Your task to perform on an android device: set default search engine in the chrome app Image 0: 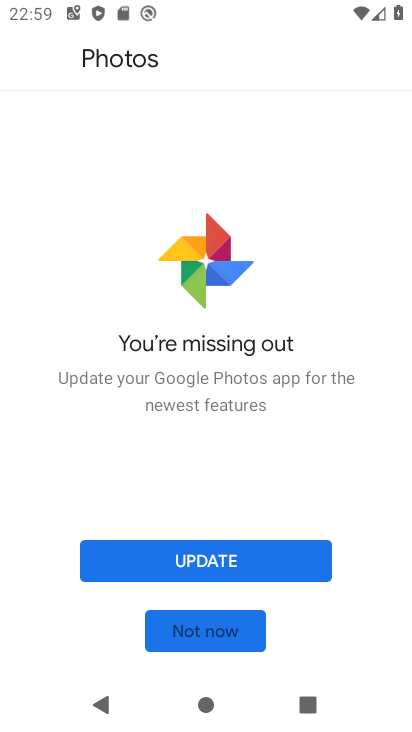
Step 0: click (243, 636)
Your task to perform on an android device: set default search engine in the chrome app Image 1: 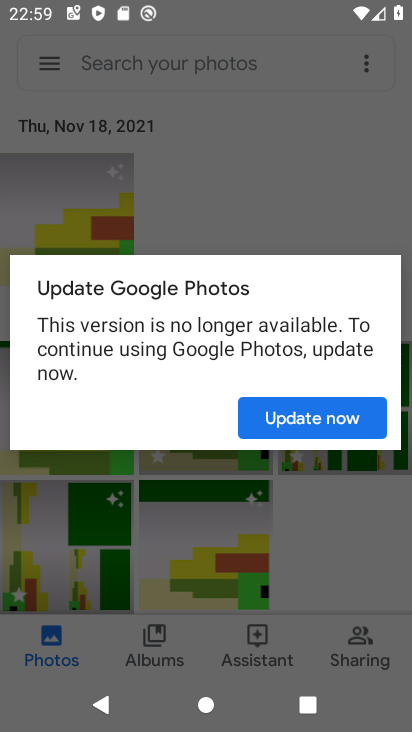
Step 1: click (274, 423)
Your task to perform on an android device: set default search engine in the chrome app Image 2: 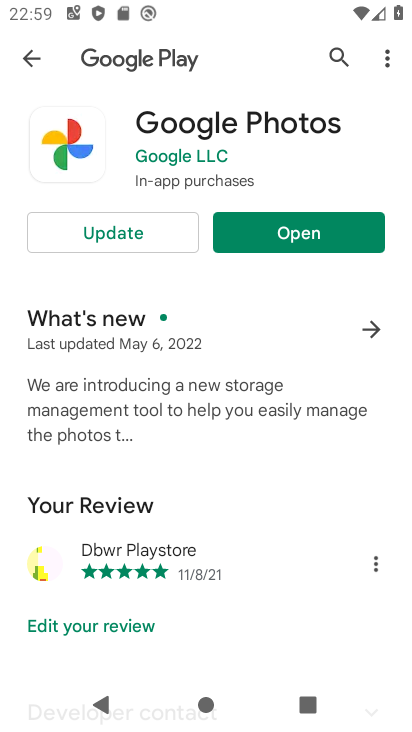
Step 2: click (125, 233)
Your task to perform on an android device: set default search engine in the chrome app Image 3: 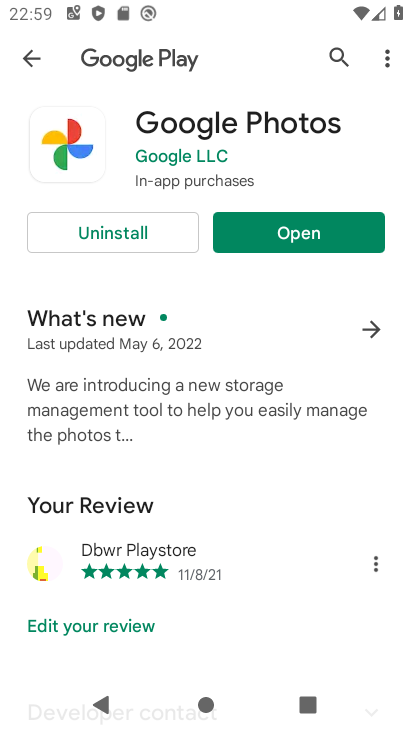
Step 3: click (344, 228)
Your task to perform on an android device: set default search engine in the chrome app Image 4: 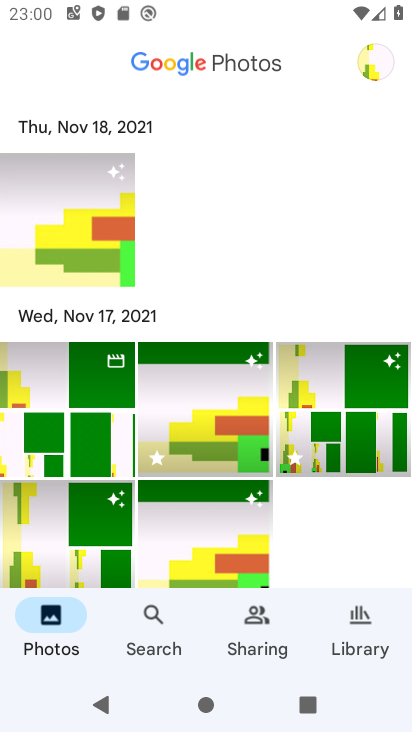
Step 4: press home button
Your task to perform on an android device: set default search engine in the chrome app Image 5: 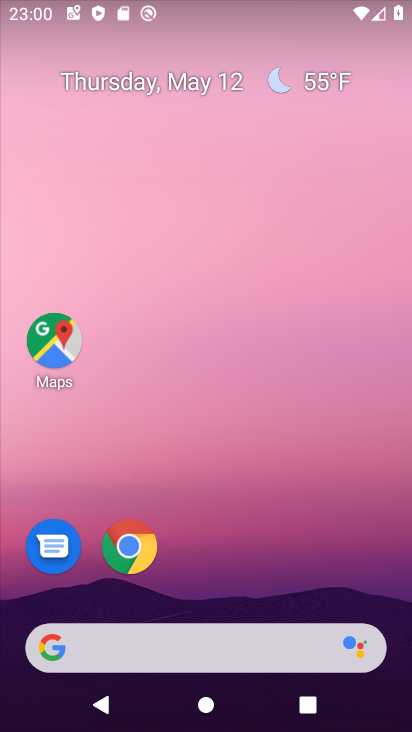
Step 5: click (137, 545)
Your task to perform on an android device: set default search engine in the chrome app Image 6: 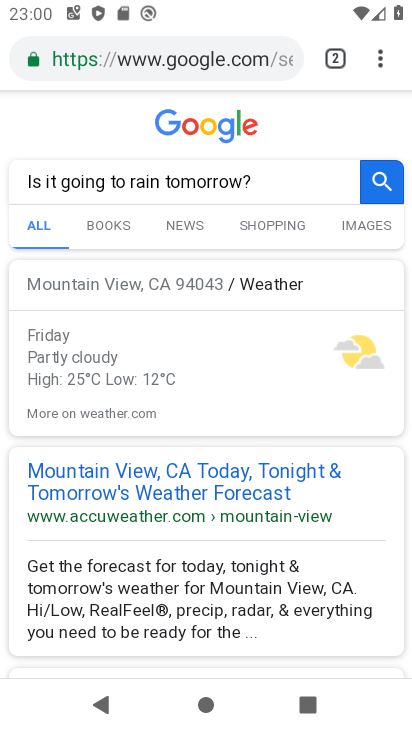
Step 6: click (381, 50)
Your task to perform on an android device: set default search engine in the chrome app Image 7: 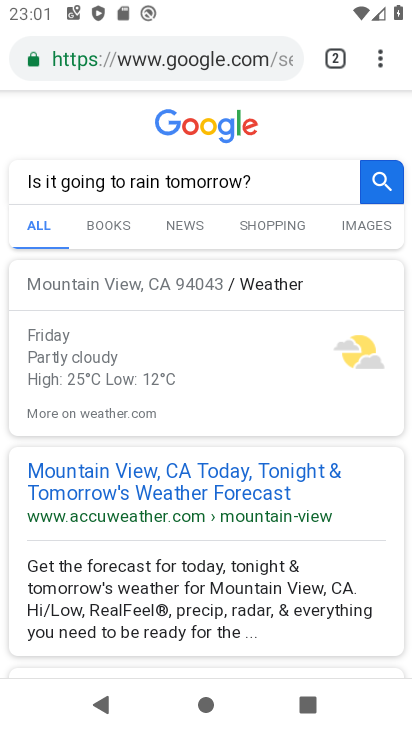
Step 7: click (380, 51)
Your task to perform on an android device: set default search engine in the chrome app Image 8: 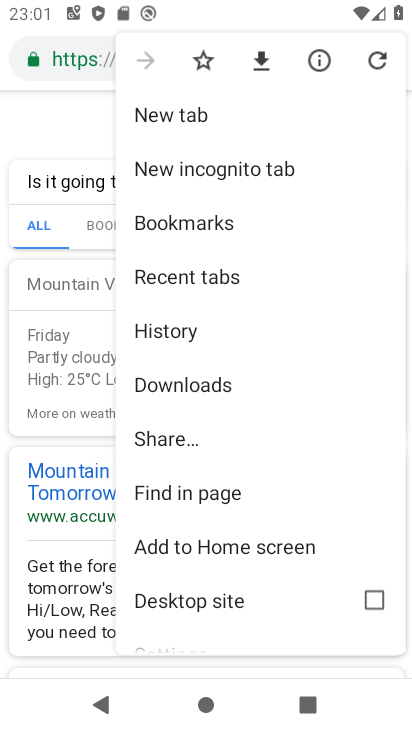
Step 8: drag from (203, 575) to (233, 374)
Your task to perform on an android device: set default search engine in the chrome app Image 9: 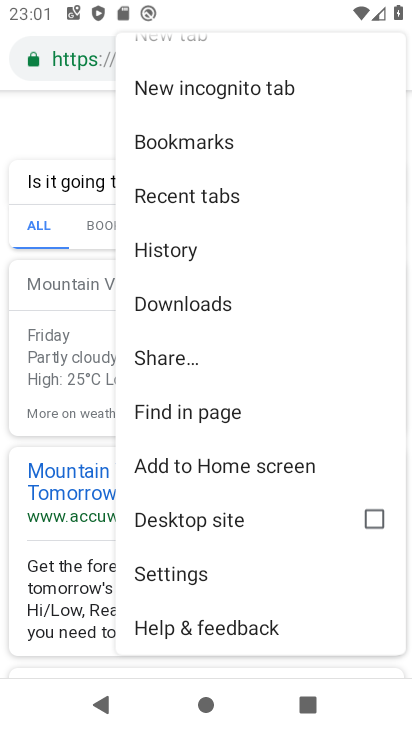
Step 9: click (212, 579)
Your task to perform on an android device: set default search engine in the chrome app Image 10: 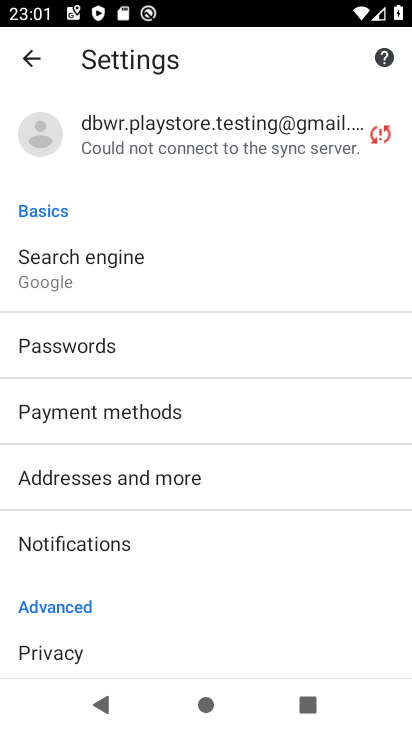
Step 10: drag from (0, 667) to (97, 251)
Your task to perform on an android device: set default search engine in the chrome app Image 11: 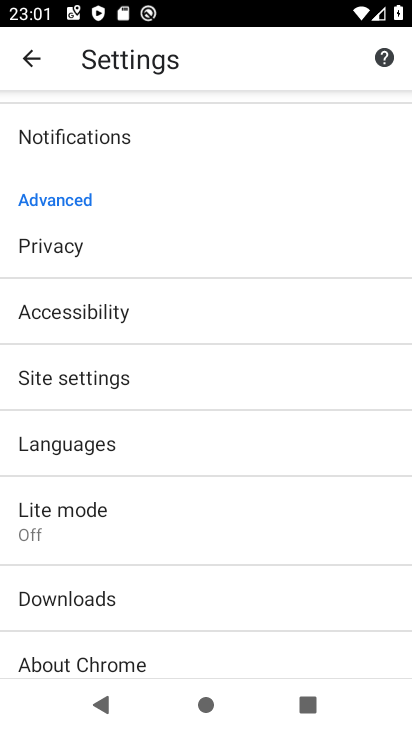
Step 11: drag from (205, 176) to (174, 624)
Your task to perform on an android device: set default search engine in the chrome app Image 12: 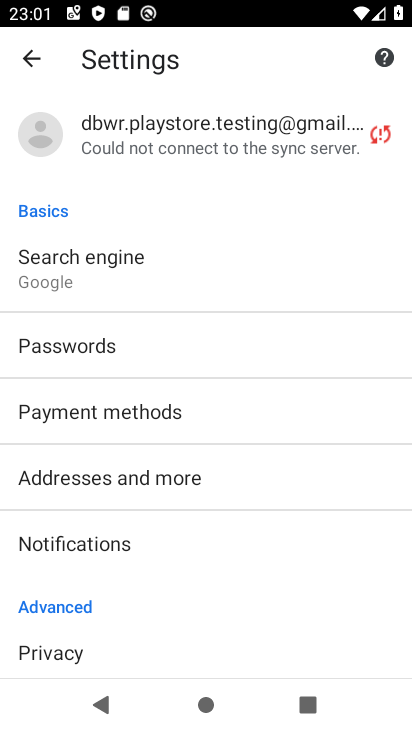
Step 12: drag from (173, 220) to (146, 472)
Your task to perform on an android device: set default search engine in the chrome app Image 13: 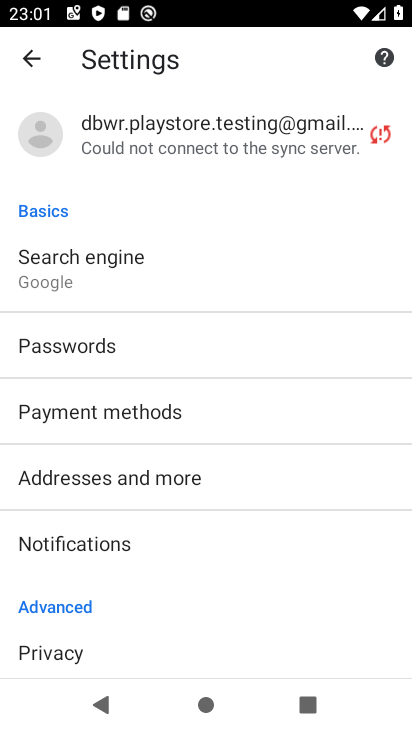
Step 13: click (105, 268)
Your task to perform on an android device: set default search engine in the chrome app Image 14: 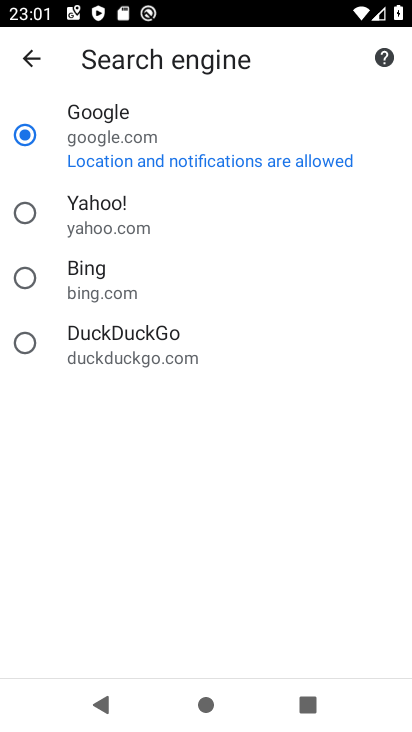
Step 14: task complete